Your task to perform on an android device: Open the phone app and click the voicemail tab. Image 0: 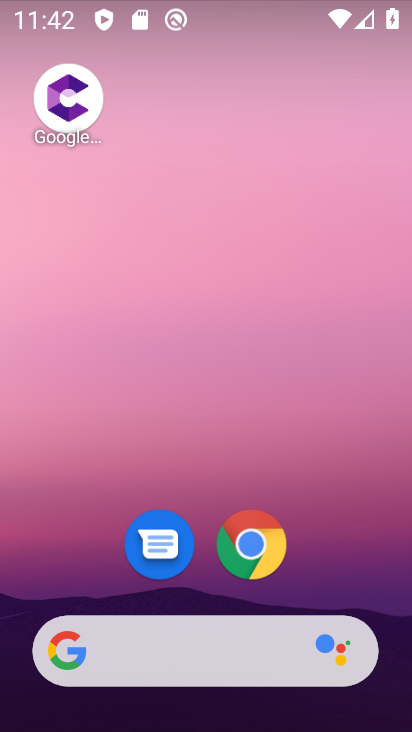
Step 0: drag from (204, 718) to (201, 156)
Your task to perform on an android device: Open the phone app and click the voicemail tab. Image 1: 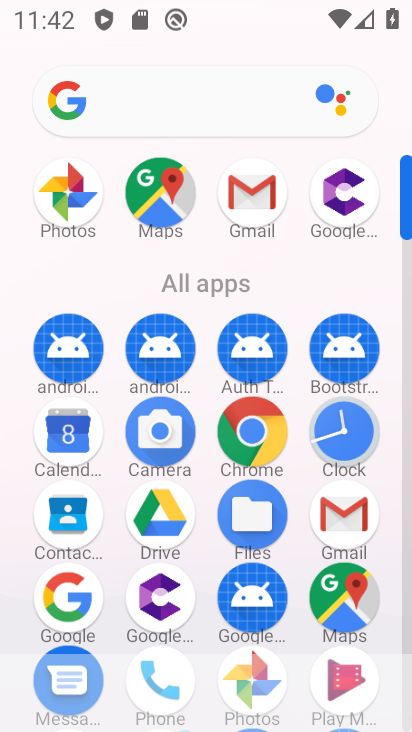
Step 1: click (162, 662)
Your task to perform on an android device: Open the phone app and click the voicemail tab. Image 2: 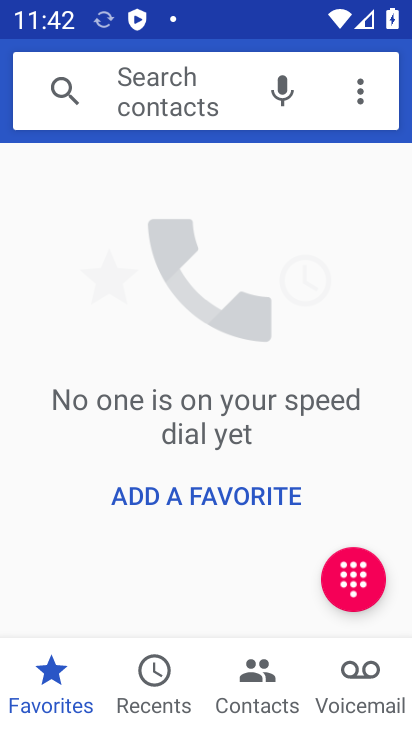
Step 2: click (353, 687)
Your task to perform on an android device: Open the phone app and click the voicemail tab. Image 3: 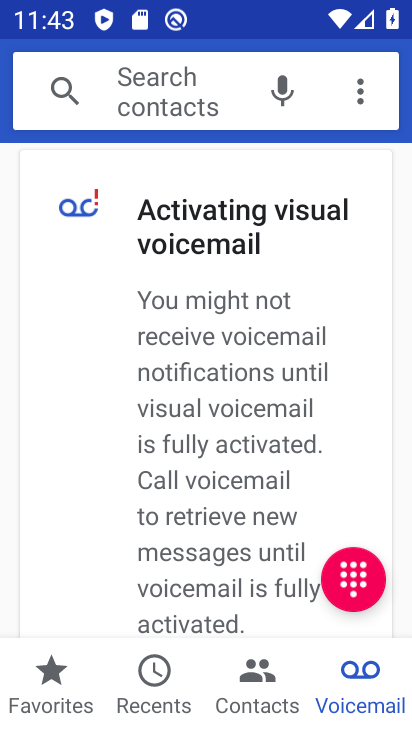
Step 3: task complete